Your task to perform on an android device: move an email to a new category in the gmail app Image 0: 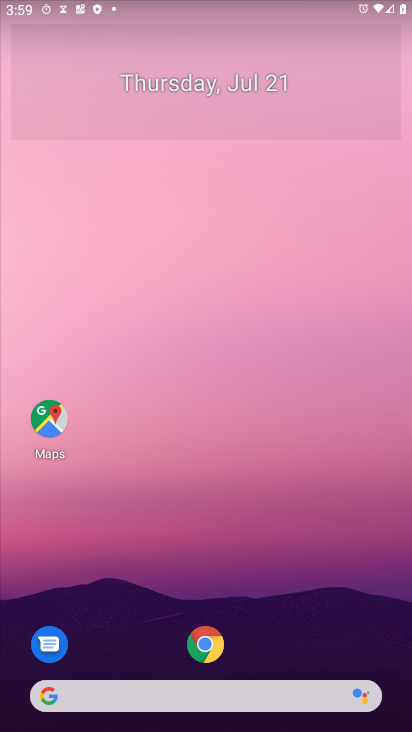
Step 0: press home button
Your task to perform on an android device: move an email to a new category in the gmail app Image 1: 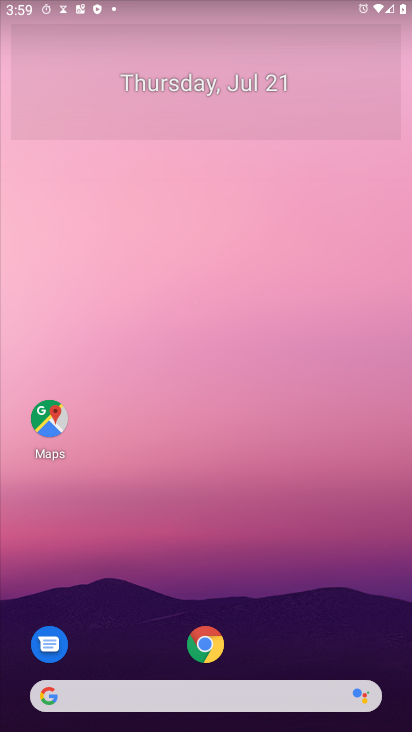
Step 1: drag from (295, 561) to (296, 0)
Your task to perform on an android device: move an email to a new category in the gmail app Image 2: 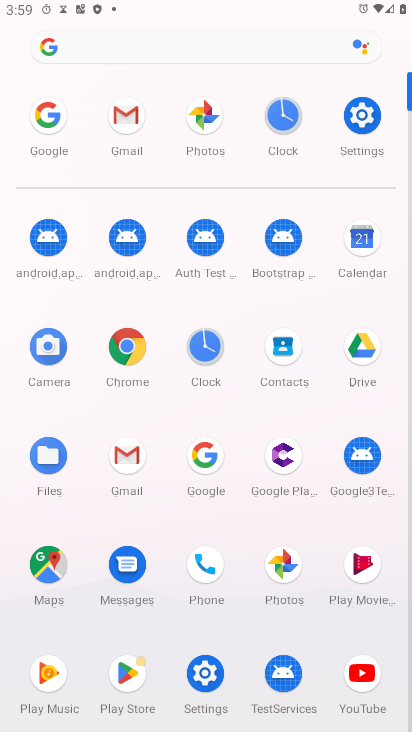
Step 2: click (130, 112)
Your task to perform on an android device: move an email to a new category in the gmail app Image 3: 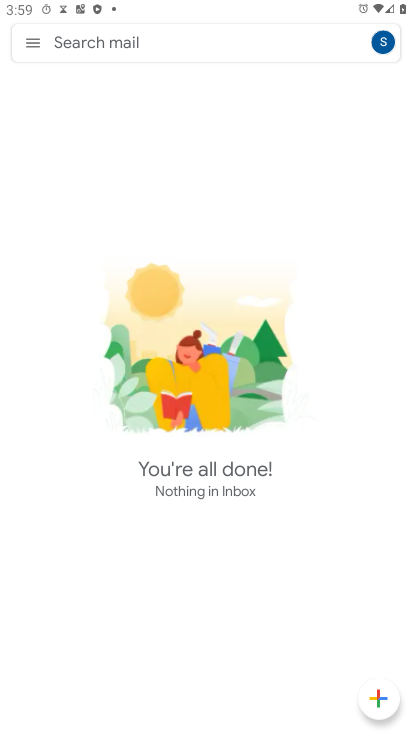
Step 3: click (39, 38)
Your task to perform on an android device: move an email to a new category in the gmail app Image 4: 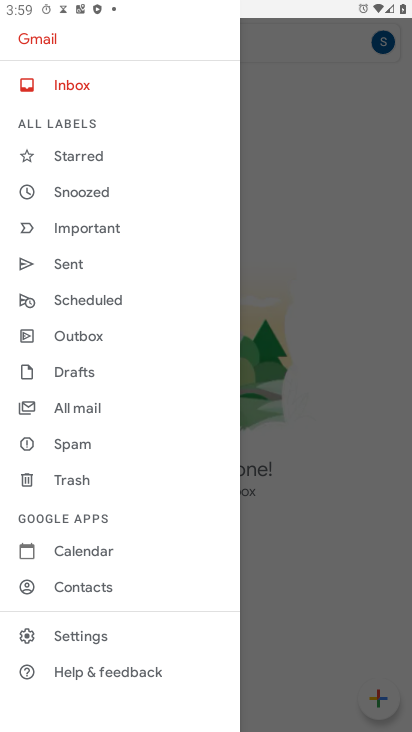
Step 4: click (87, 405)
Your task to perform on an android device: move an email to a new category in the gmail app Image 5: 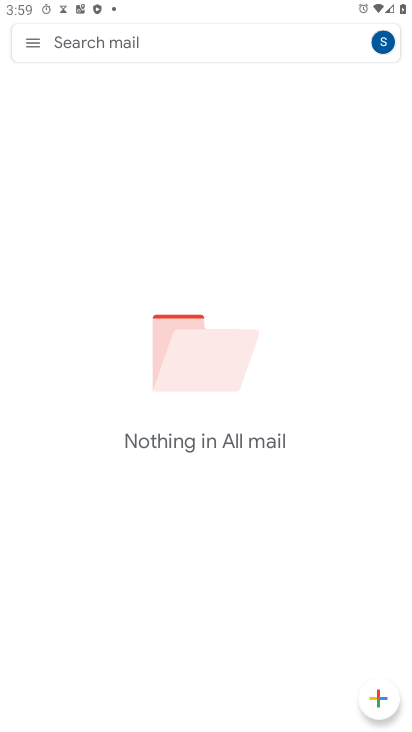
Step 5: task complete